Your task to perform on an android device: star an email in the gmail app Image 0: 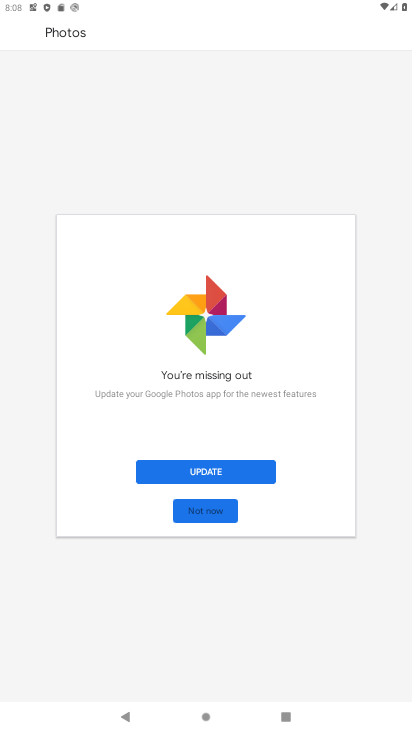
Step 0: press home button
Your task to perform on an android device: star an email in the gmail app Image 1: 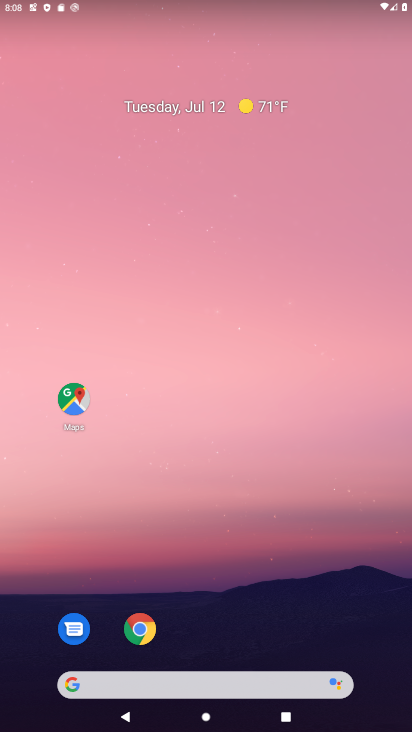
Step 1: drag from (395, 709) to (297, 202)
Your task to perform on an android device: star an email in the gmail app Image 2: 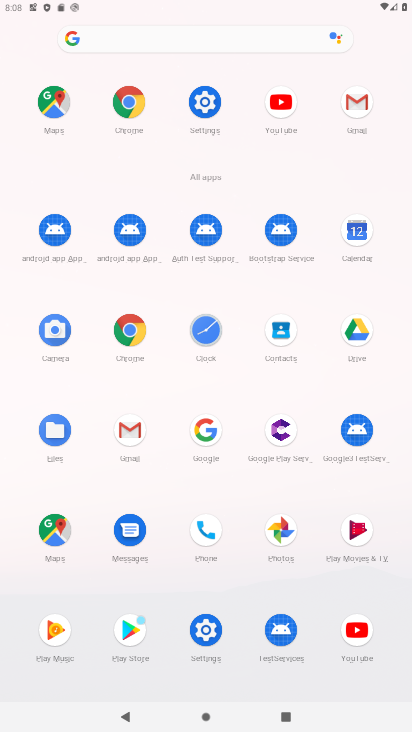
Step 2: click (351, 102)
Your task to perform on an android device: star an email in the gmail app Image 3: 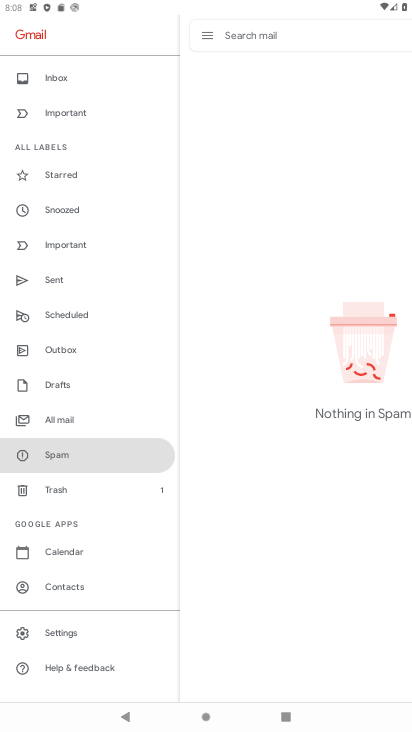
Step 3: task complete